Your task to perform on an android device: Search for seafood restaurants on Google Maps Image 0: 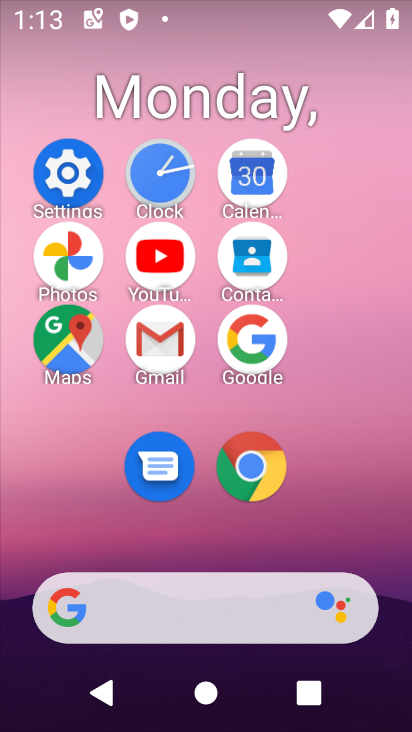
Step 0: click (83, 362)
Your task to perform on an android device: Search for seafood restaurants on Google Maps Image 1: 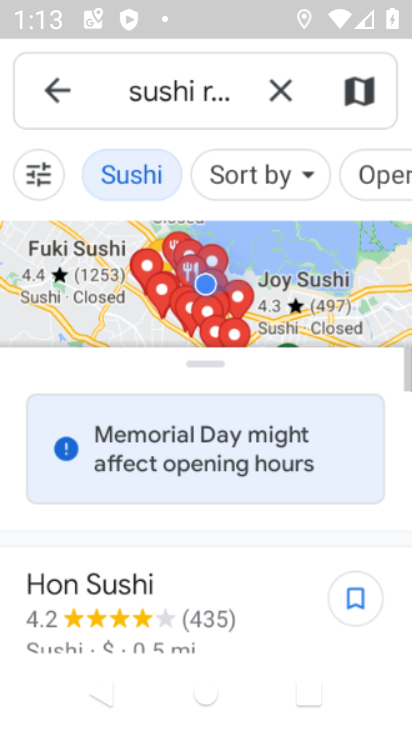
Step 1: click (272, 88)
Your task to perform on an android device: Search for seafood restaurants on Google Maps Image 2: 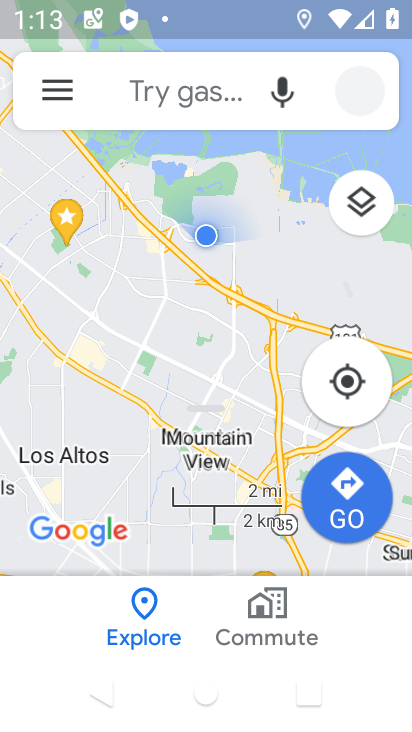
Step 2: click (205, 103)
Your task to perform on an android device: Search for seafood restaurants on Google Maps Image 3: 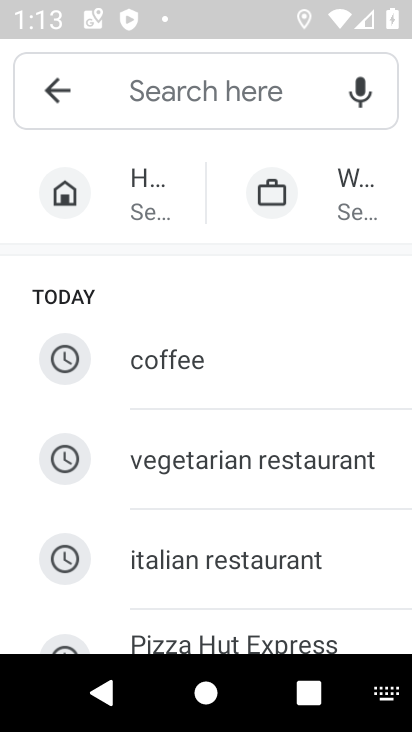
Step 3: drag from (229, 556) to (225, 202)
Your task to perform on an android device: Search for seafood restaurants on Google Maps Image 4: 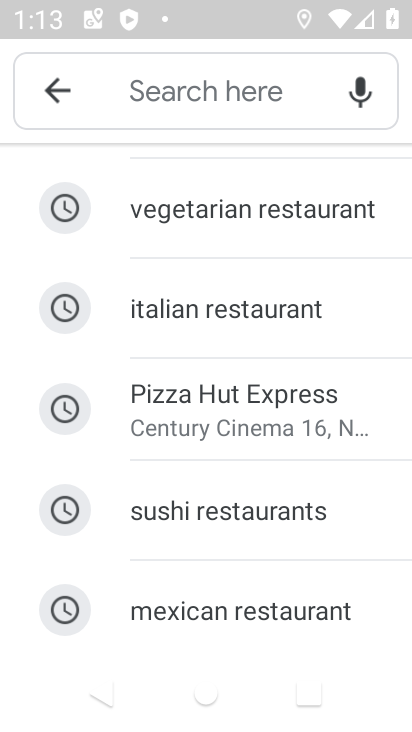
Step 4: drag from (277, 539) to (271, 206)
Your task to perform on an android device: Search for seafood restaurants on Google Maps Image 5: 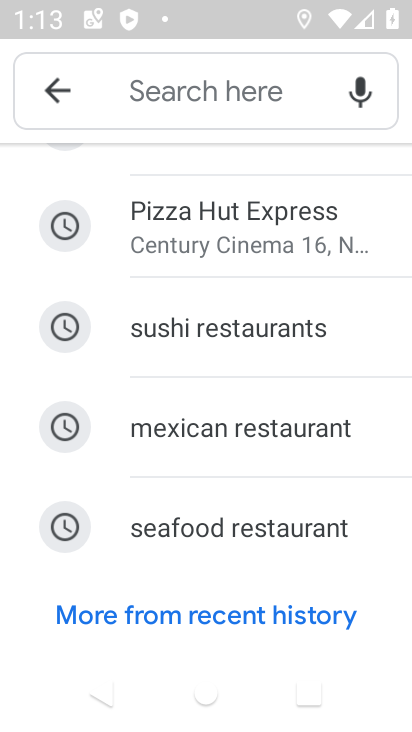
Step 5: click (250, 545)
Your task to perform on an android device: Search for seafood restaurants on Google Maps Image 6: 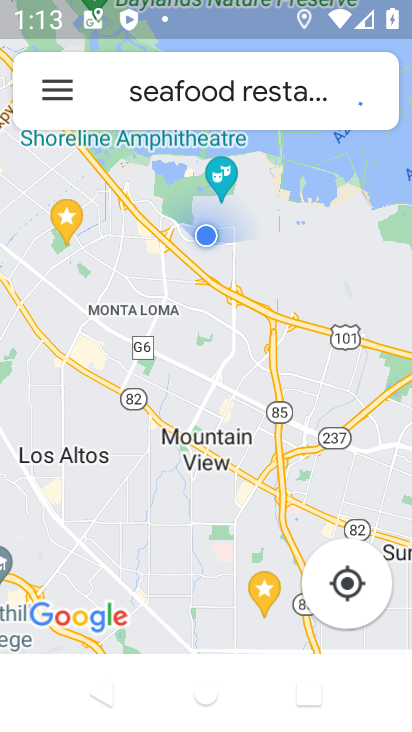
Step 6: task complete